Your task to perform on an android device: Go to eBay Image 0: 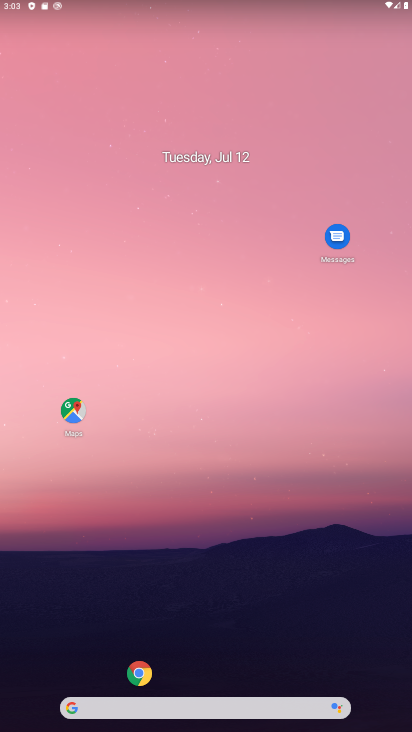
Step 0: click (182, 702)
Your task to perform on an android device: Go to eBay Image 1: 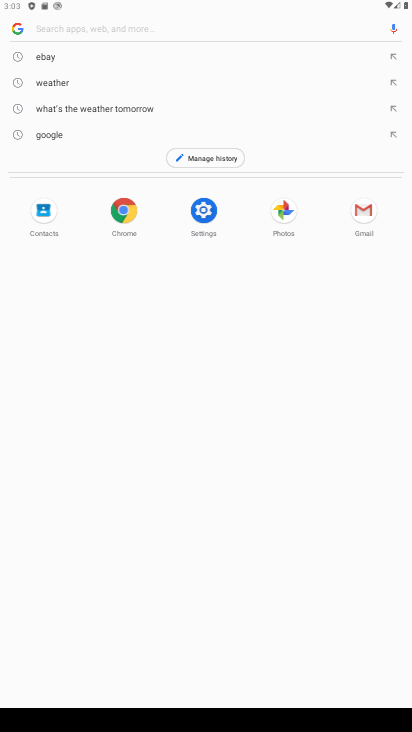
Step 1: click (53, 55)
Your task to perform on an android device: Go to eBay Image 2: 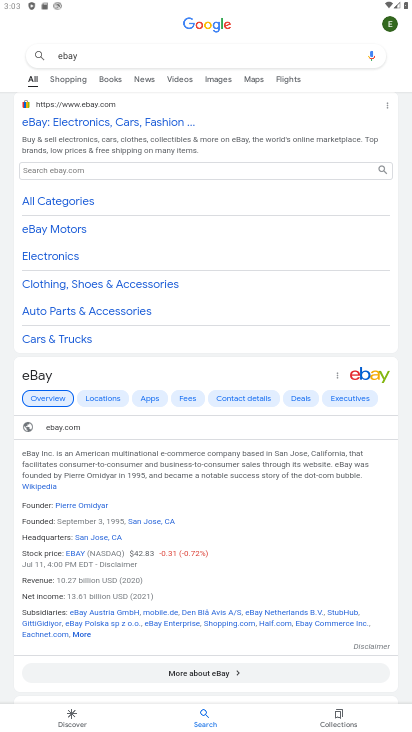
Step 2: task complete